Your task to perform on an android device: change the clock style Image 0: 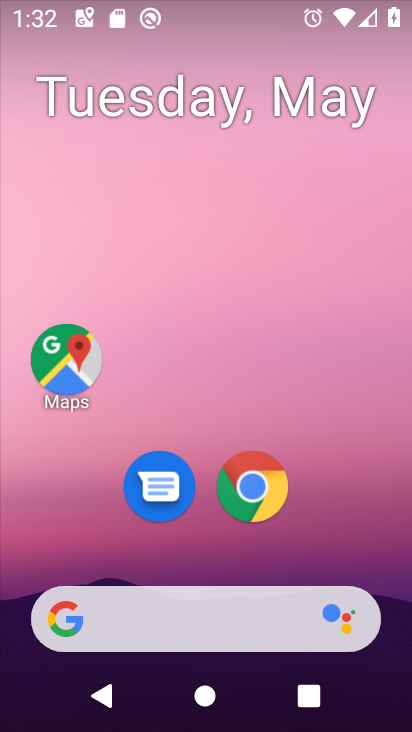
Step 0: drag from (119, 474) to (255, 234)
Your task to perform on an android device: change the clock style Image 1: 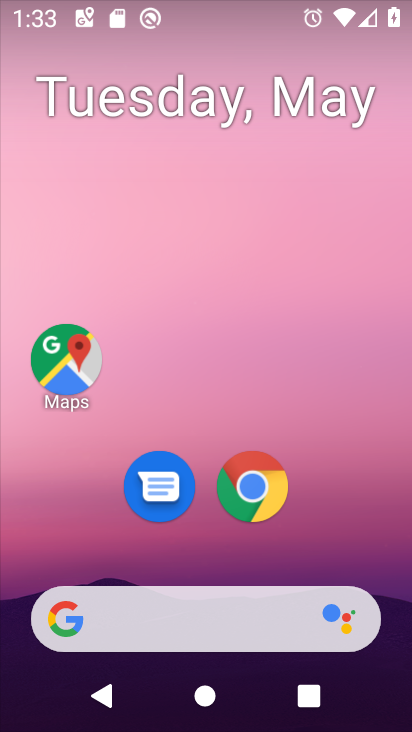
Step 1: press home button
Your task to perform on an android device: change the clock style Image 2: 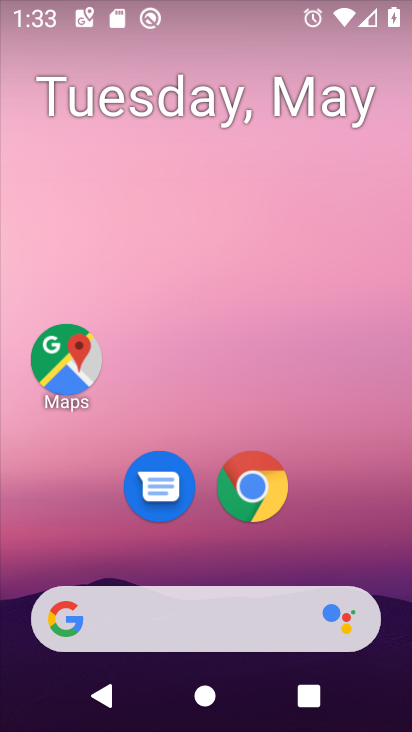
Step 2: drag from (61, 513) to (208, 205)
Your task to perform on an android device: change the clock style Image 3: 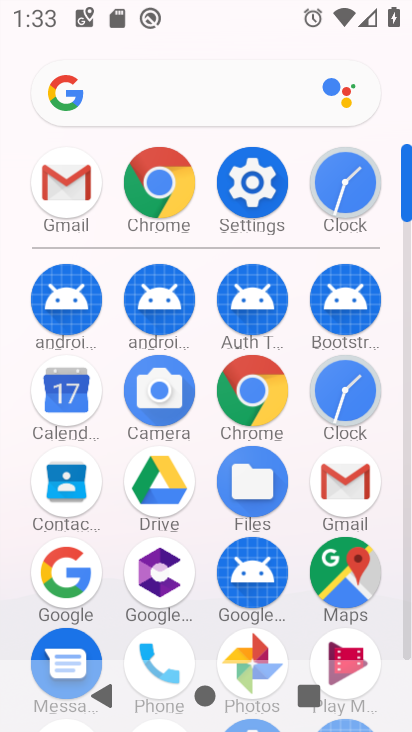
Step 3: click (370, 184)
Your task to perform on an android device: change the clock style Image 4: 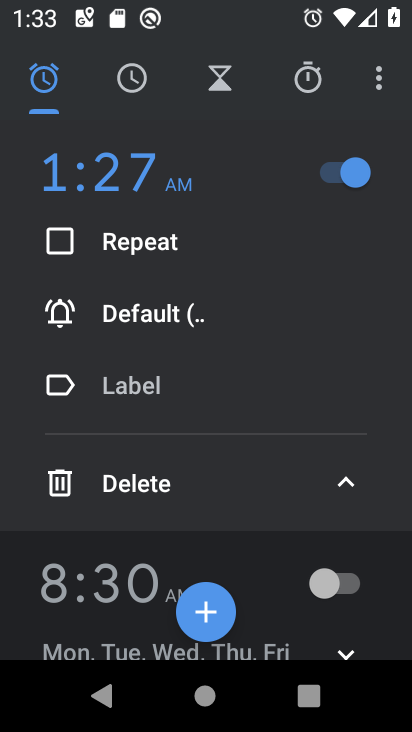
Step 4: click (113, 695)
Your task to perform on an android device: change the clock style Image 5: 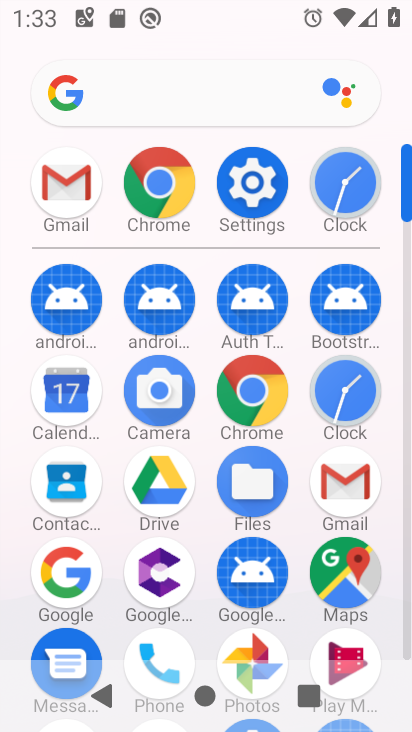
Step 5: click (359, 196)
Your task to perform on an android device: change the clock style Image 6: 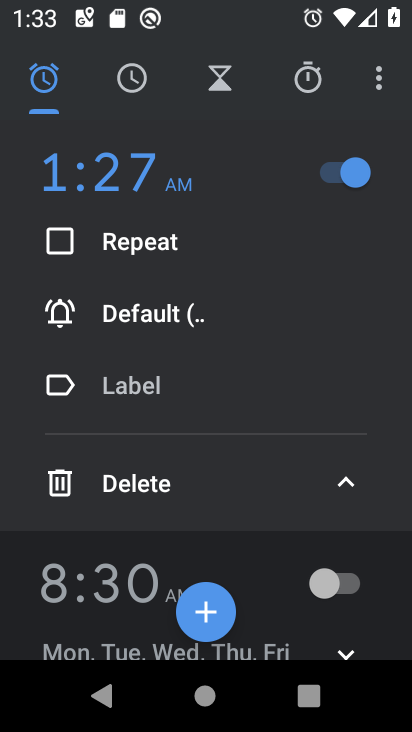
Step 6: click (379, 76)
Your task to perform on an android device: change the clock style Image 7: 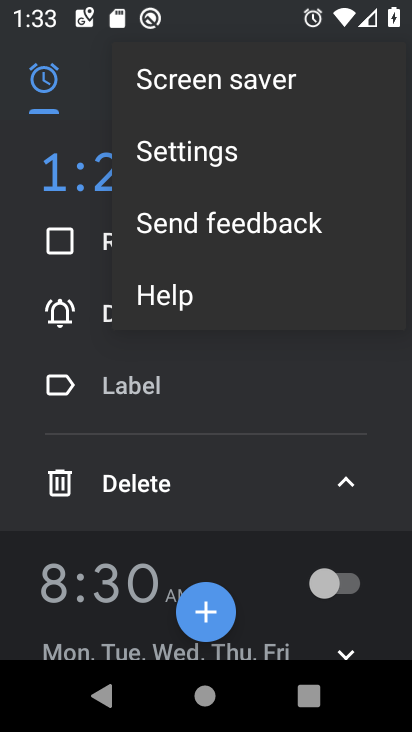
Step 7: click (212, 152)
Your task to perform on an android device: change the clock style Image 8: 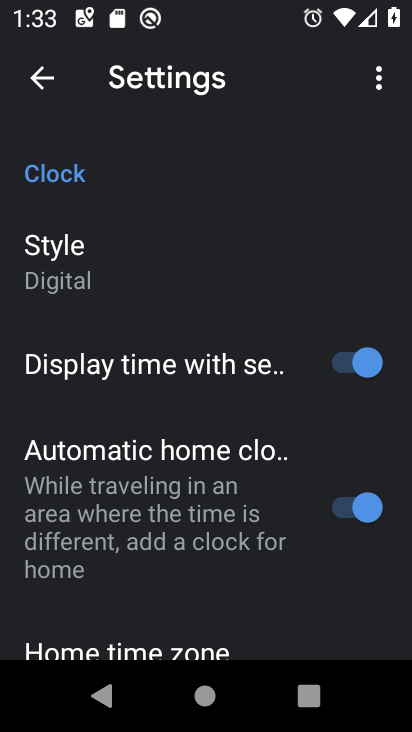
Step 8: click (70, 267)
Your task to perform on an android device: change the clock style Image 9: 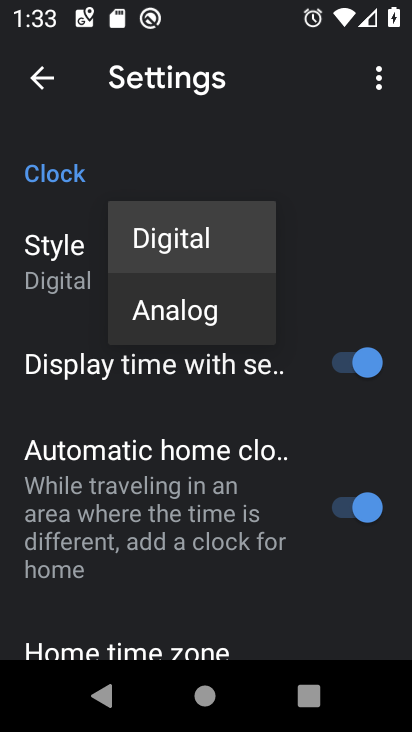
Step 9: click (135, 320)
Your task to perform on an android device: change the clock style Image 10: 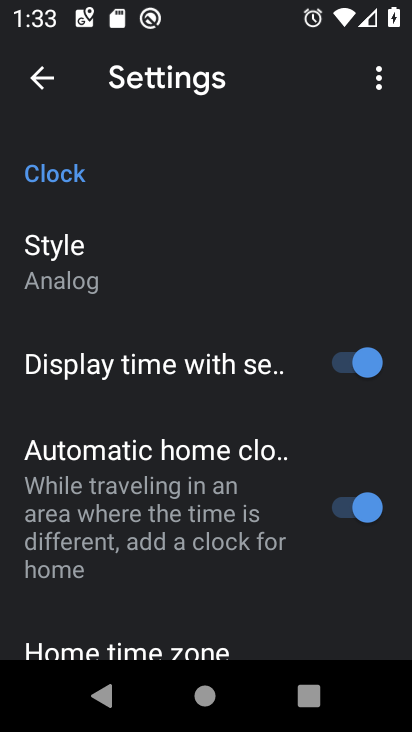
Step 10: task complete